Your task to perform on an android device: Open Wikipedia Image 0: 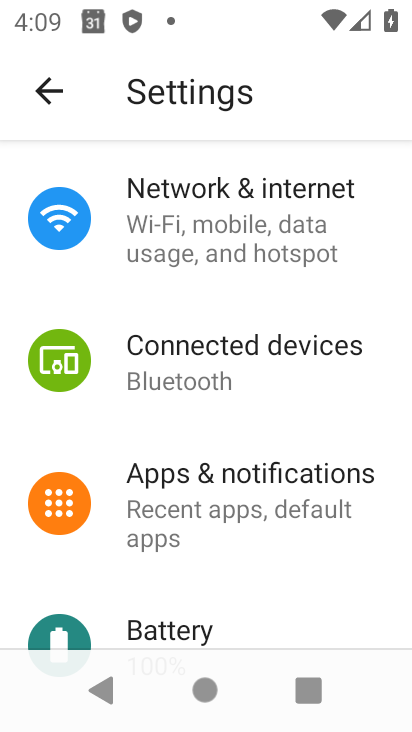
Step 0: press home button
Your task to perform on an android device: Open Wikipedia Image 1: 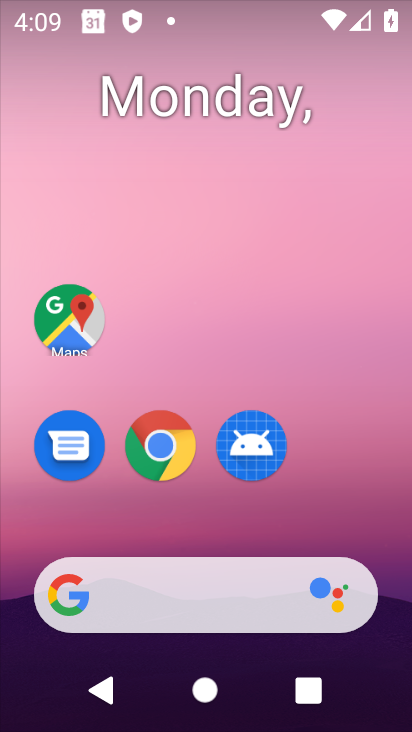
Step 1: drag from (239, 6) to (205, 331)
Your task to perform on an android device: Open Wikipedia Image 2: 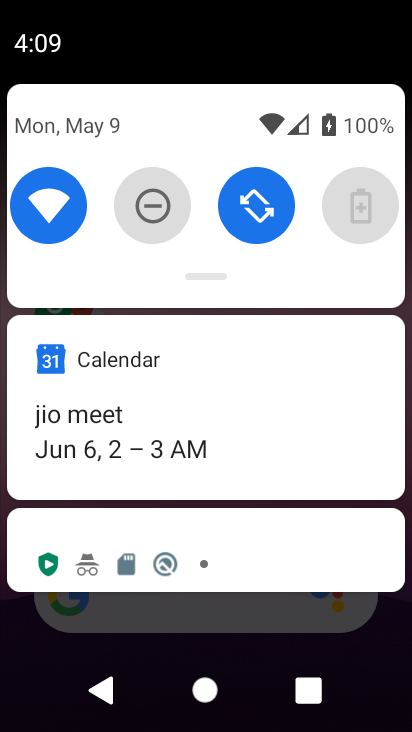
Step 2: click (205, 650)
Your task to perform on an android device: Open Wikipedia Image 3: 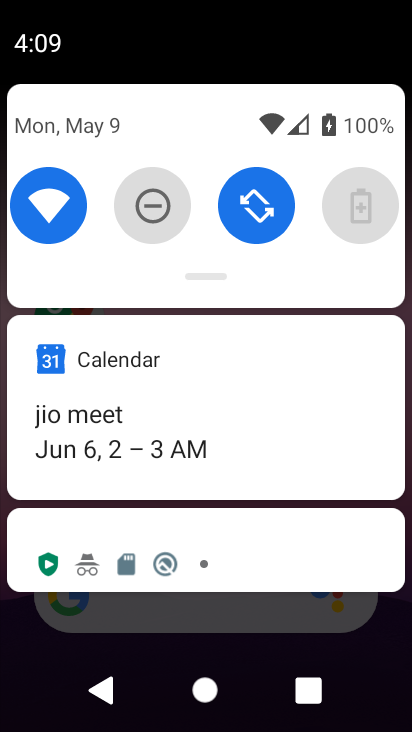
Step 3: drag from (197, 610) to (89, 403)
Your task to perform on an android device: Open Wikipedia Image 4: 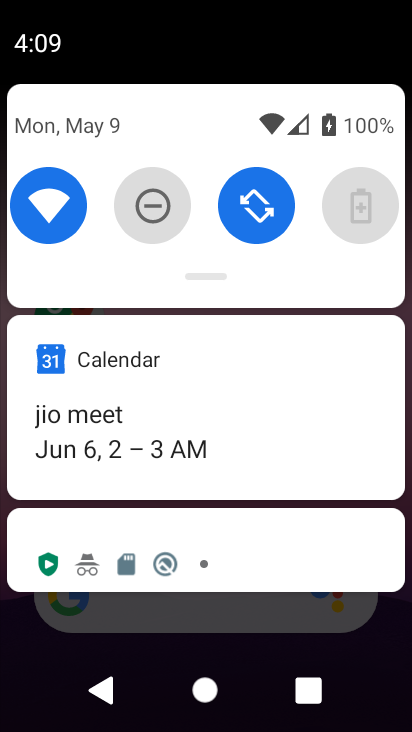
Step 4: drag from (142, 609) to (101, 3)
Your task to perform on an android device: Open Wikipedia Image 5: 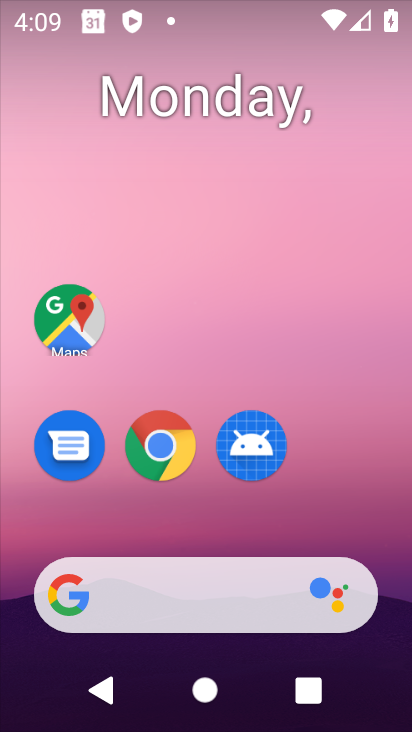
Step 5: click (129, 443)
Your task to perform on an android device: Open Wikipedia Image 6: 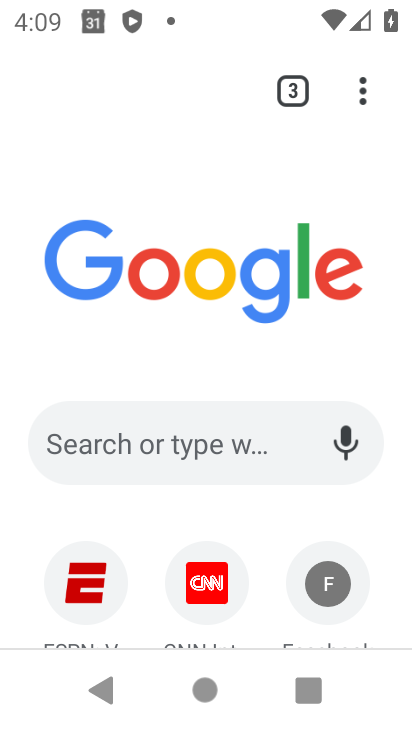
Step 6: drag from (141, 508) to (144, 330)
Your task to perform on an android device: Open Wikipedia Image 7: 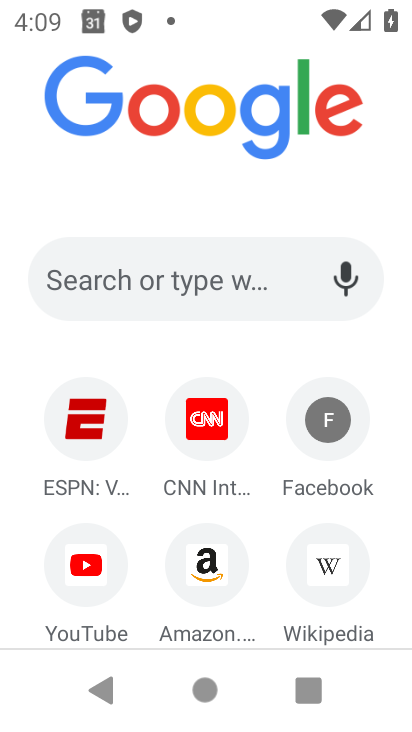
Step 7: click (144, 330)
Your task to perform on an android device: Open Wikipedia Image 8: 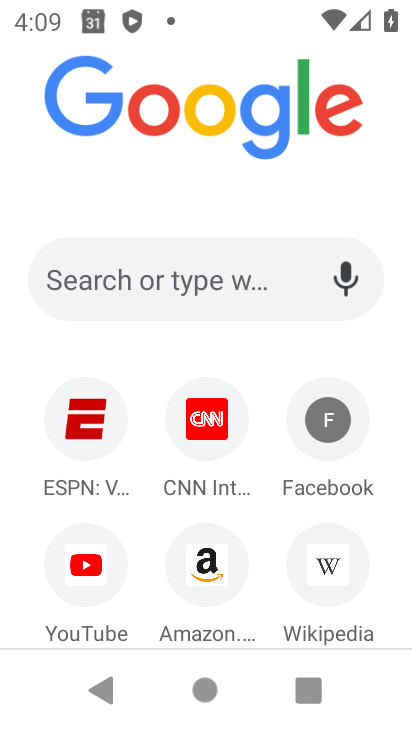
Step 8: click (327, 597)
Your task to perform on an android device: Open Wikipedia Image 9: 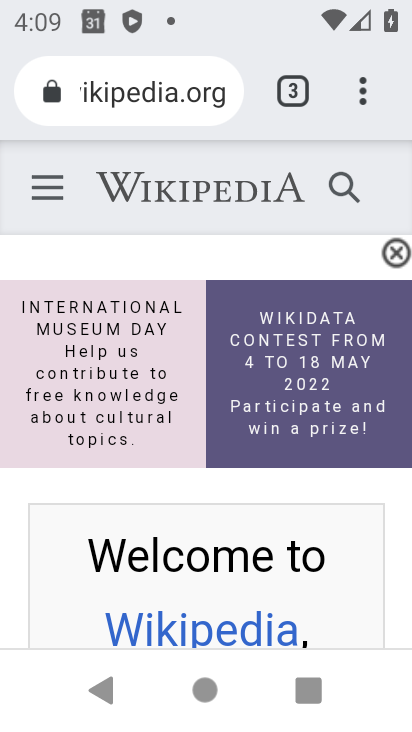
Step 9: task complete